Your task to perform on an android device: Search for Italian restaurants on Maps Image 0: 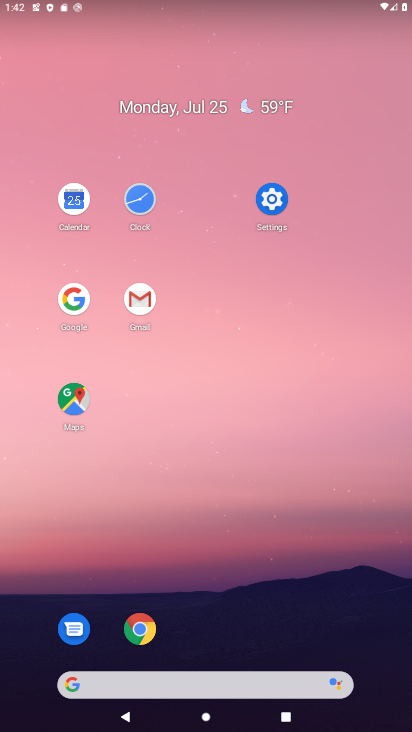
Step 0: click (74, 404)
Your task to perform on an android device: Search for Italian restaurants on Maps Image 1: 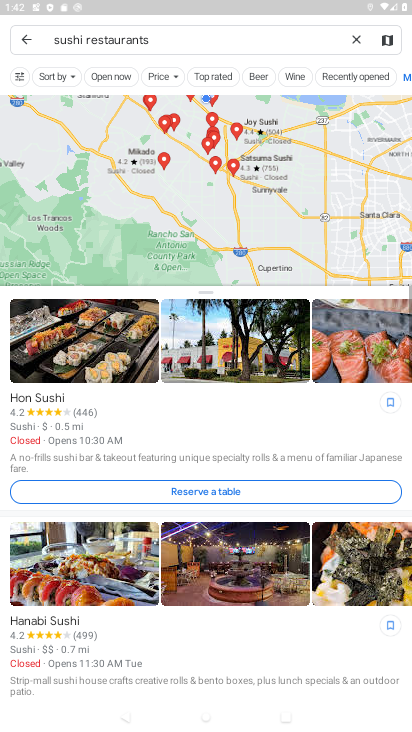
Step 1: click (348, 35)
Your task to perform on an android device: Search for Italian restaurants on Maps Image 2: 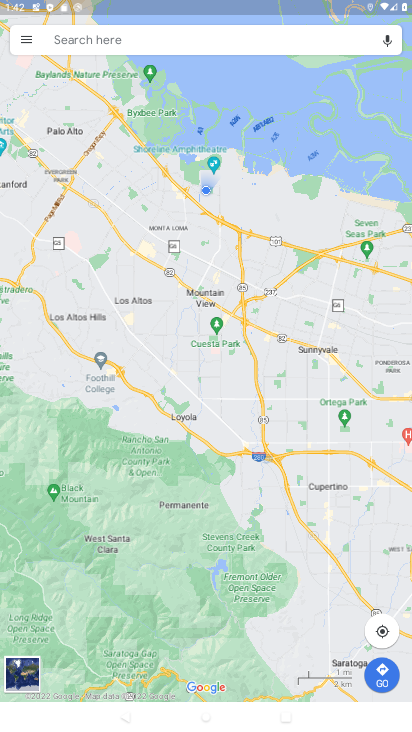
Step 2: click (261, 46)
Your task to perform on an android device: Search for Italian restaurants on Maps Image 3: 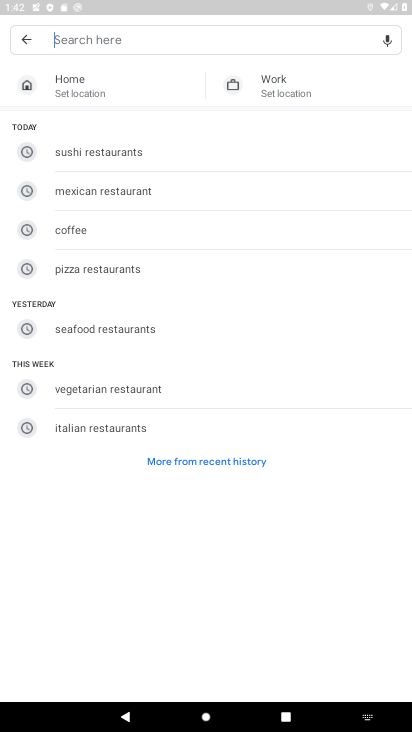
Step 3: click (105, 432)
Your task to perform on an android device: Search for Italian restaurants on Maps Image 4: 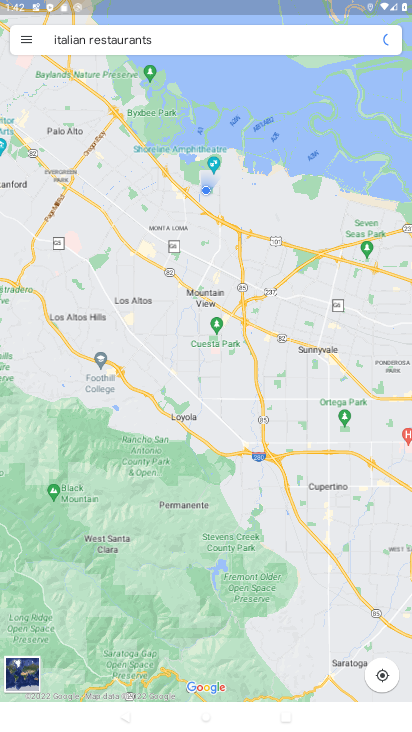
Step 4: task complete